Your task to perform on an android device: change notification settings in the gmail app Image 0: 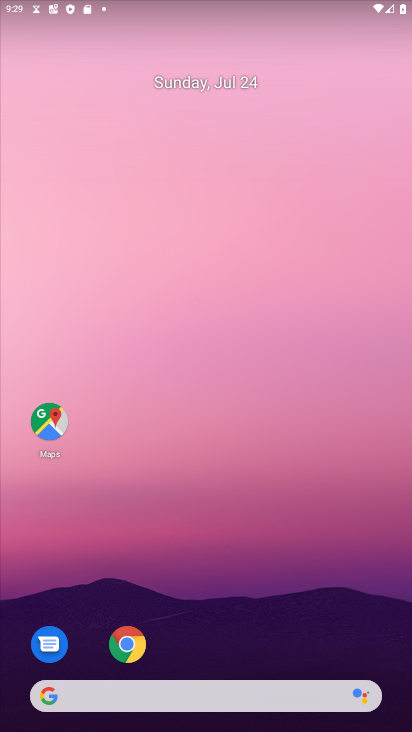
Step 0: drag from (195, 634) to (207, 130)
Your task to perform on an android device: change notification settings in the gmail app Image 1: 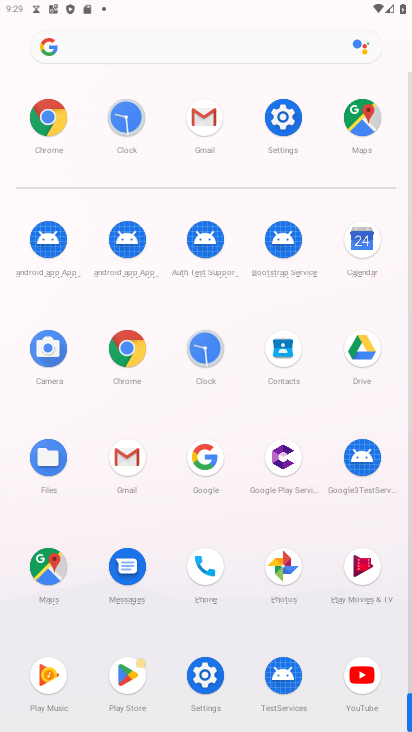
Step 1: click (203, 661)
Your task to perform on an android device: change notification settings in the gmail app Image 2: 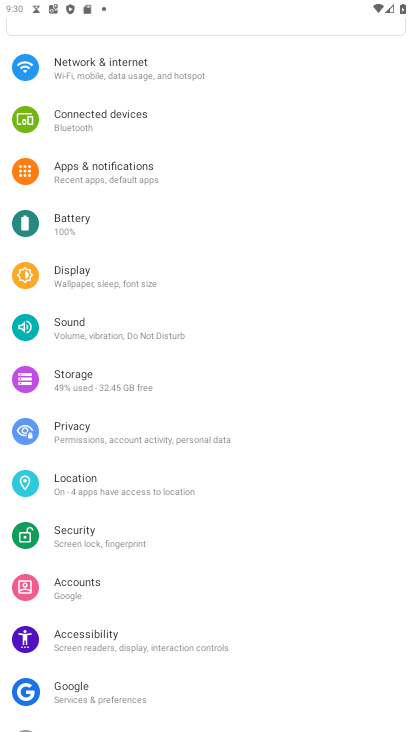
Step 2: click (96, 156)
Your task to perform on an android device: change notification settings in the gmail app Image 3: 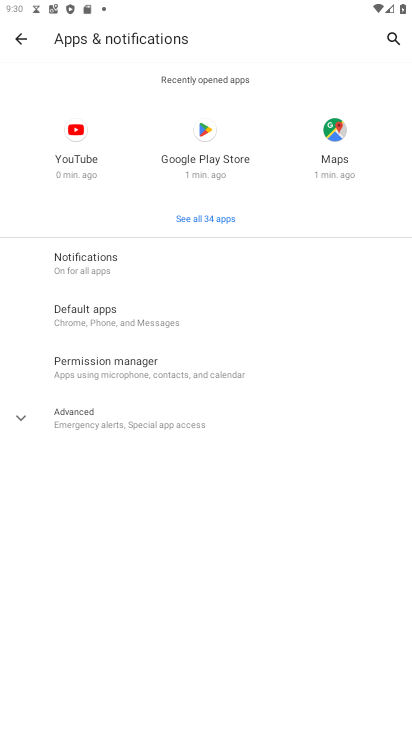
Step 3: click (69, 262)
Your task to perform on an android device: change notification settings in the gmail app Image 4: 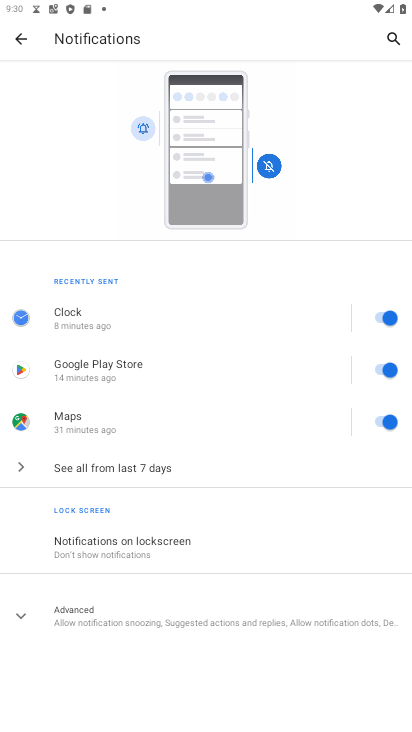
Step 4: click (296, 311)
Your task to perform on an android device: change notification settings in the gmail app Image 5: 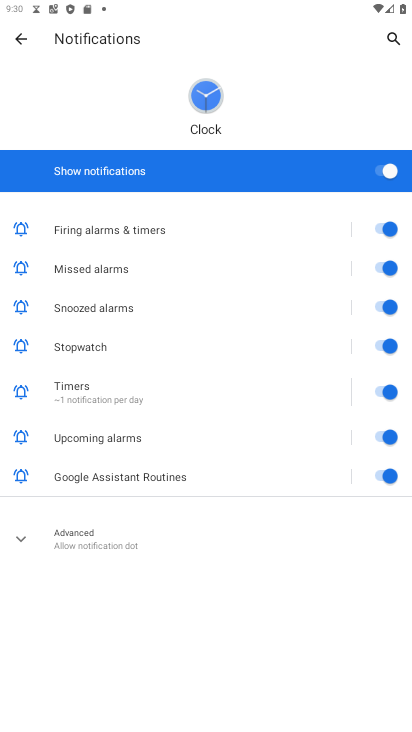
Step 5: click (297, 166)
Your task to perform on an android device: change notification settings in the gmail app Image 6: 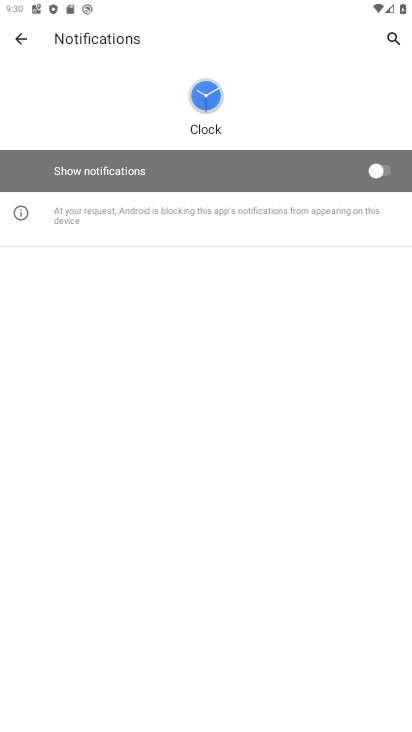
Step 6: task complete